Your task to perform on an android device: Go to Wikipedia Image 0: 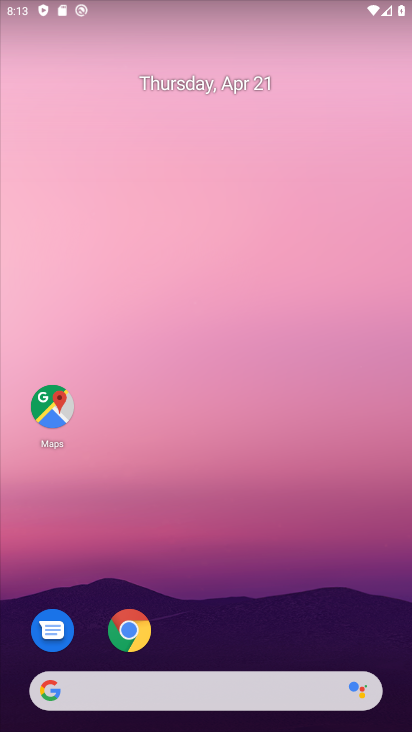
Step 0: click (121, 627)
Your task to perform on an android device: Go to Wikipedia Image 1: 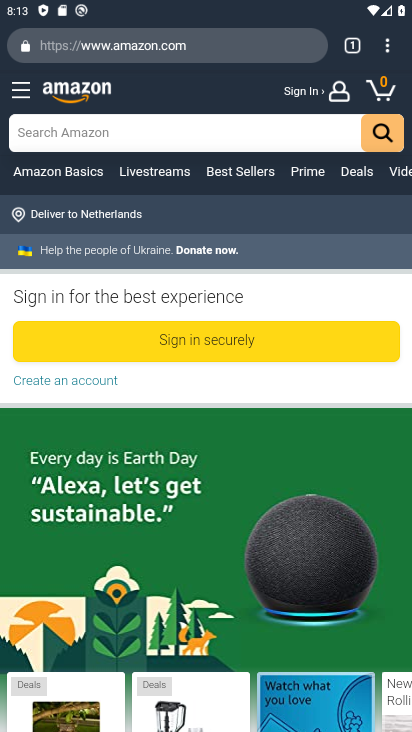
Step 1: click (167, 48)
Your task to perform on an android device: Go to Wikipedia Image 2: 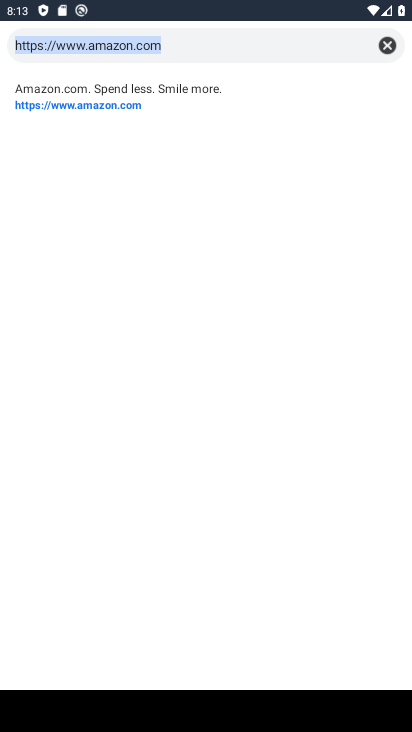
Step 2: type "wikipedia"
Your task to perform on an android device: Go to Wikipedia Image 3: 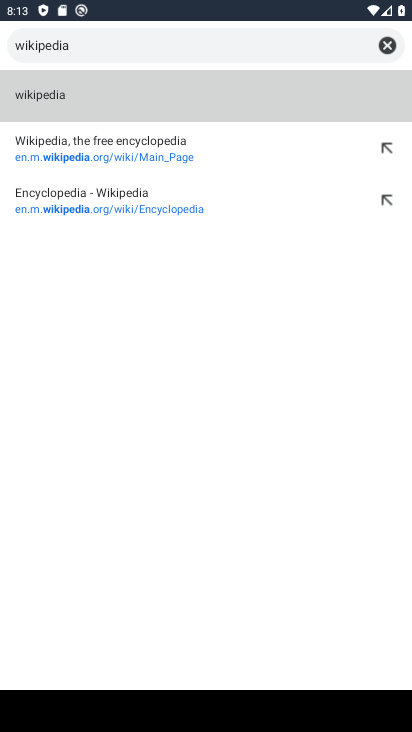
Step 3: click (127, 112)
Your task to perform on an android device: Go to Wikipedia Image 4: 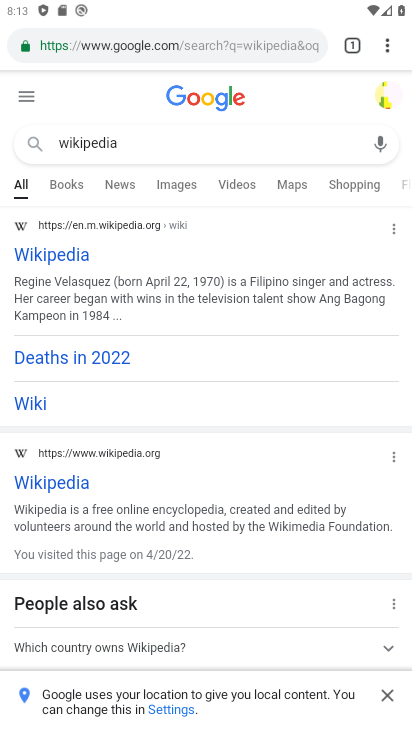
Step 4: task complete